Your task to perform on an android device: Open Reddit.com Image 0: 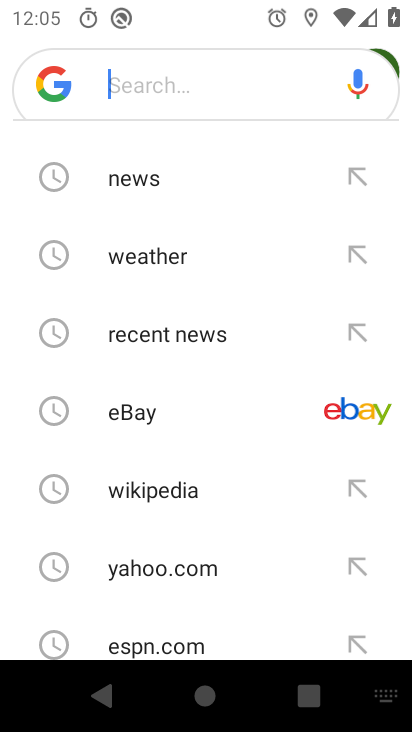
Step 0: press home button
Your task to perform on an android device: Open Reddit.com Image 1: 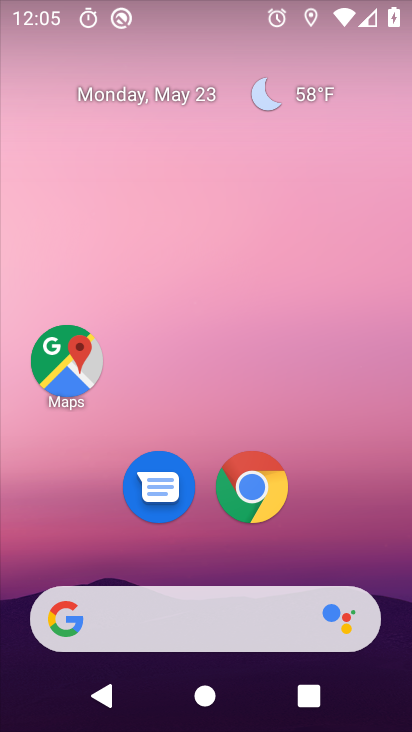
Step 1: drag from (369, 493) to (297, 115)
Your task to perform on an android device: Open Reddit.com Image 2: 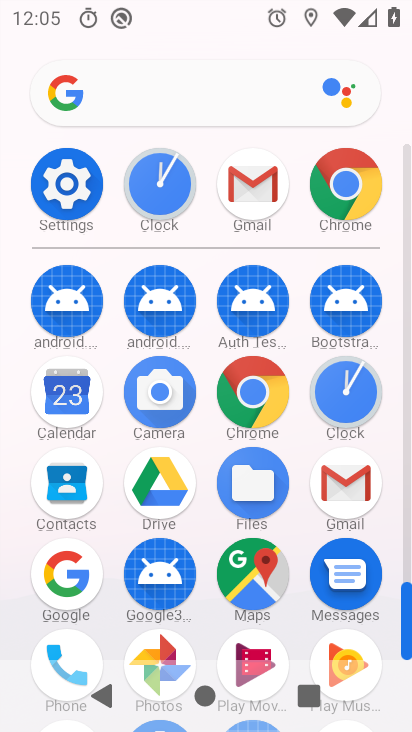
Step 2: click (251, 380)
Your task to perform on an android device: Open Reddit.com Image 3: 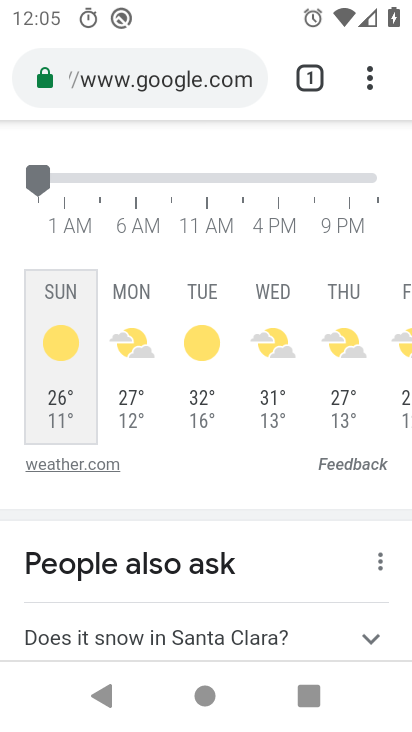
Step 3: click (124, 70)
Your task to perform on an android device: Open Reddit.com Image 4: 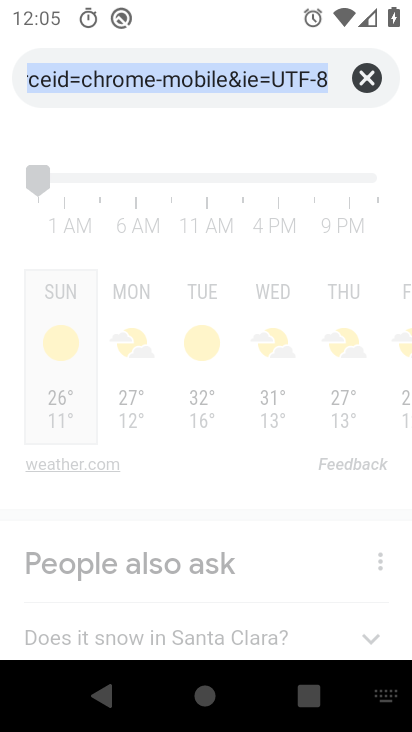
Step 4: click (373, 74)
Your task to perform on an android device: Open Reddit.com Image 5: 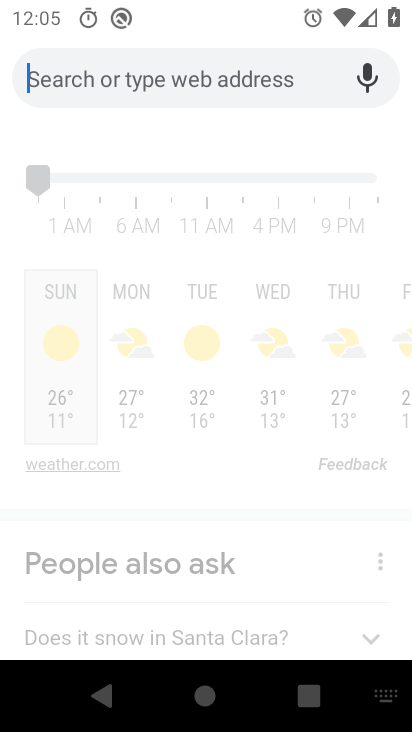
Step 5: type "reddit.com"
Your task to perform on an android device: Open Reddit.com Image 6: 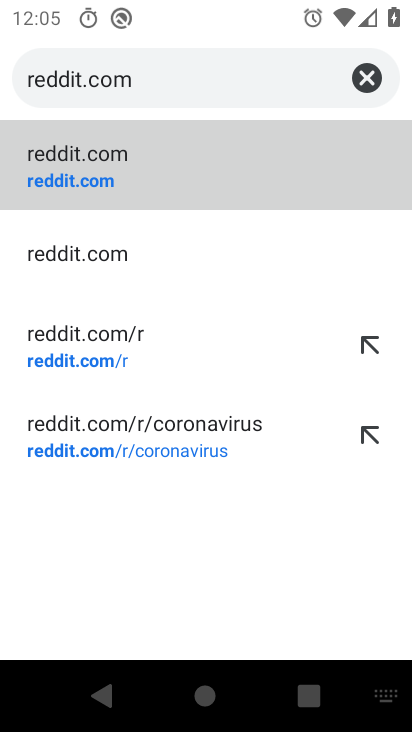
Step 6: click (23, 158)
Your task to perform on an android device: Open Reddit.com Image 7: 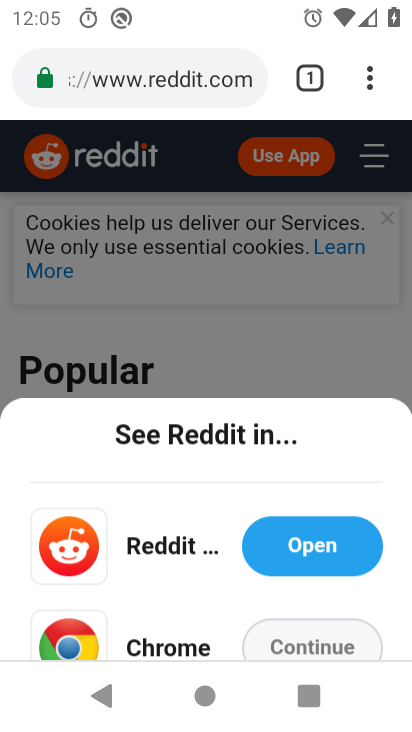
Step 7: task complete